Your task to perform on an android device: install app "Truecaller" Image 0: 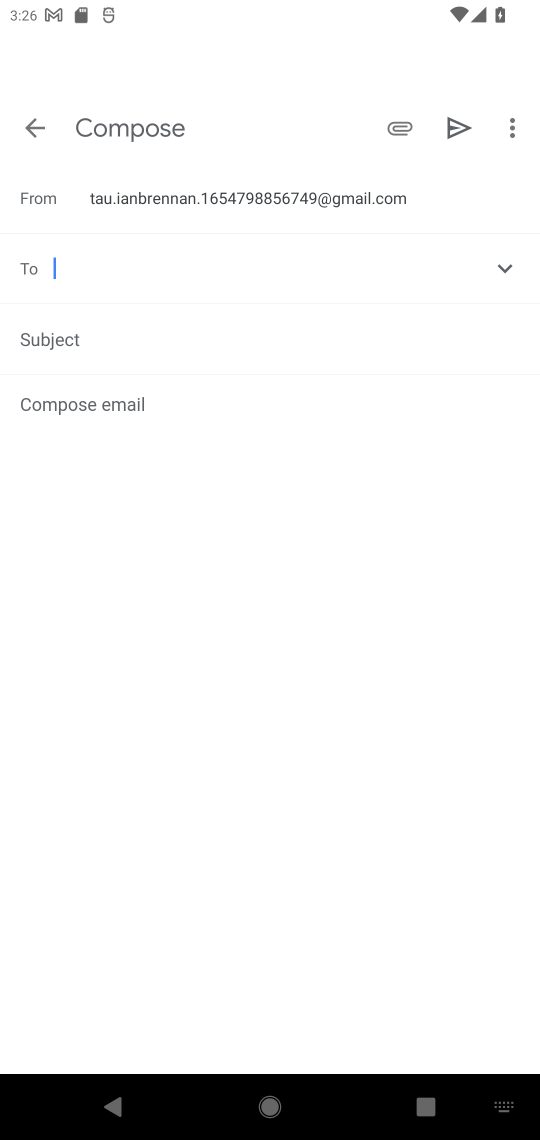
Step 0: press home button
Your task to perform on an android device: install app "Truecaller" Image 1: 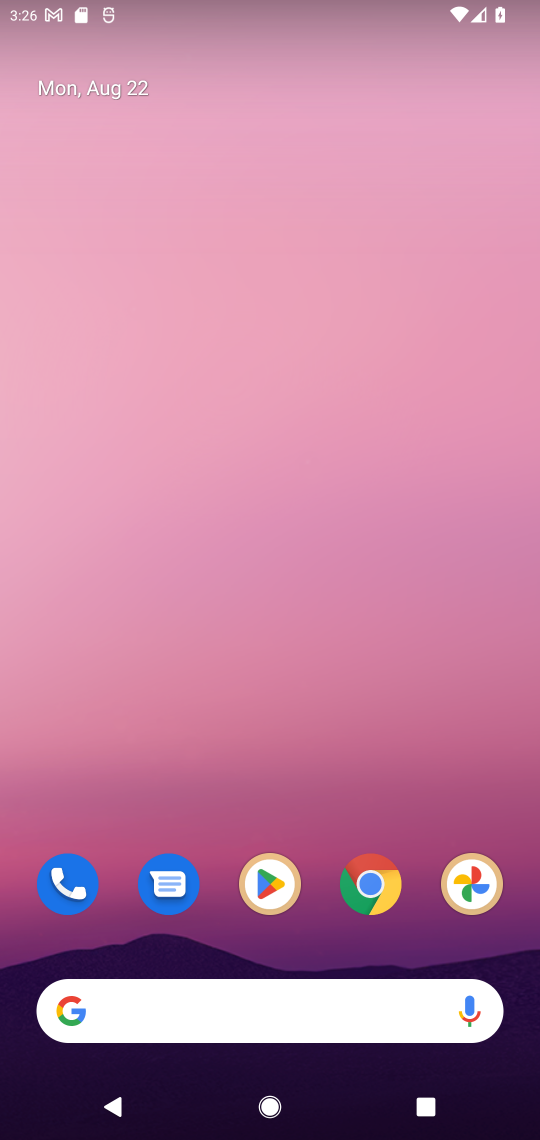
Step 1: click (281, 871)
Your task to perform on an android device: install app "Truecaller" Image 2: 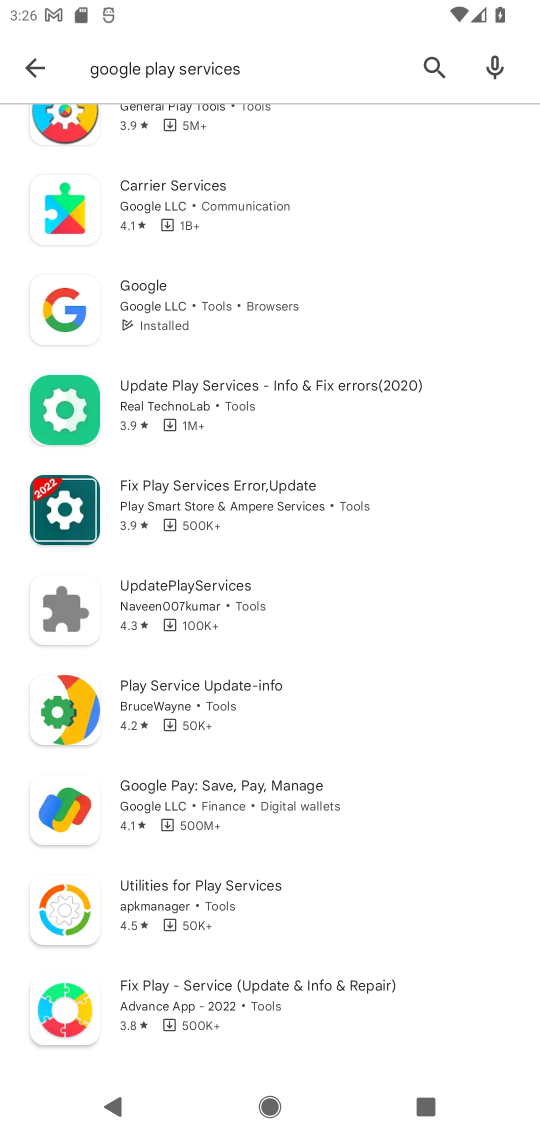
Step 2: click (208, 79)
Your task to perform on an android device: install app "Truecaller" Image 3: 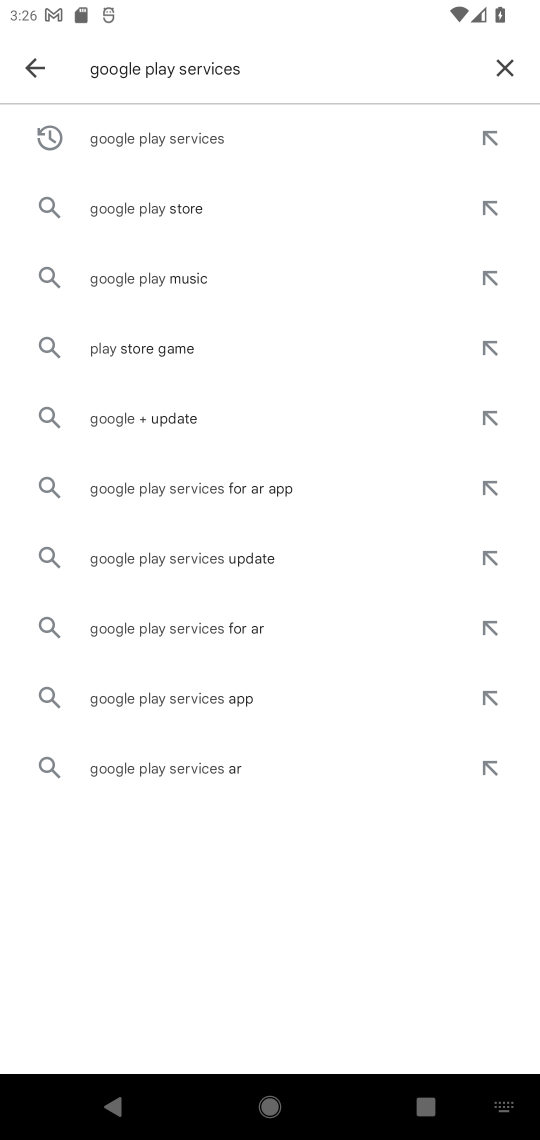
Step 3: click (505, 63)
Your task to perform on an android device: install app "Truecaller" Image 4: 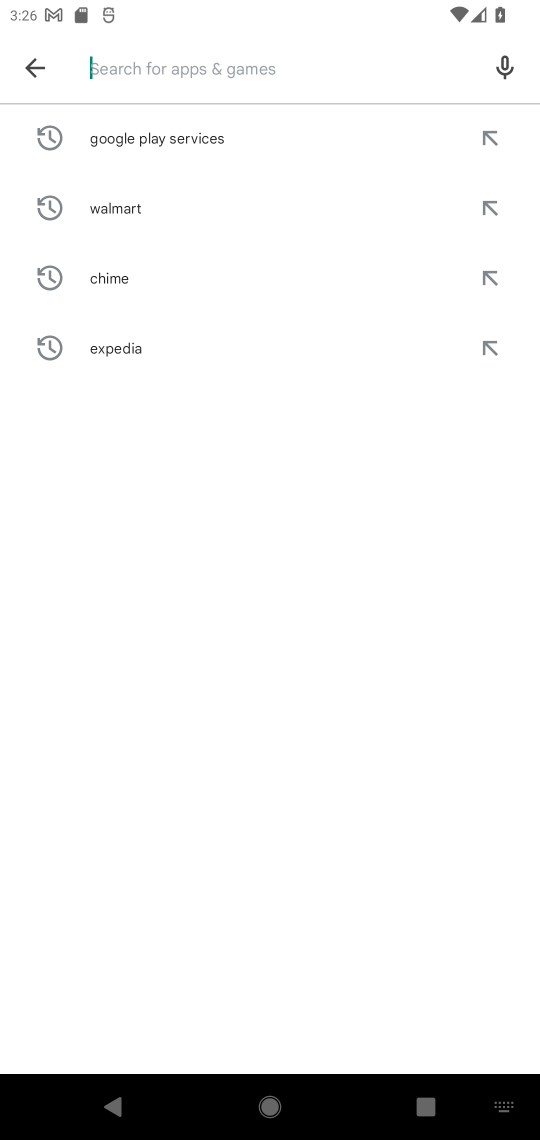
Step 4: type "truecaller"
Your task to perform on an android device: install app "Truecaller" Image 5: 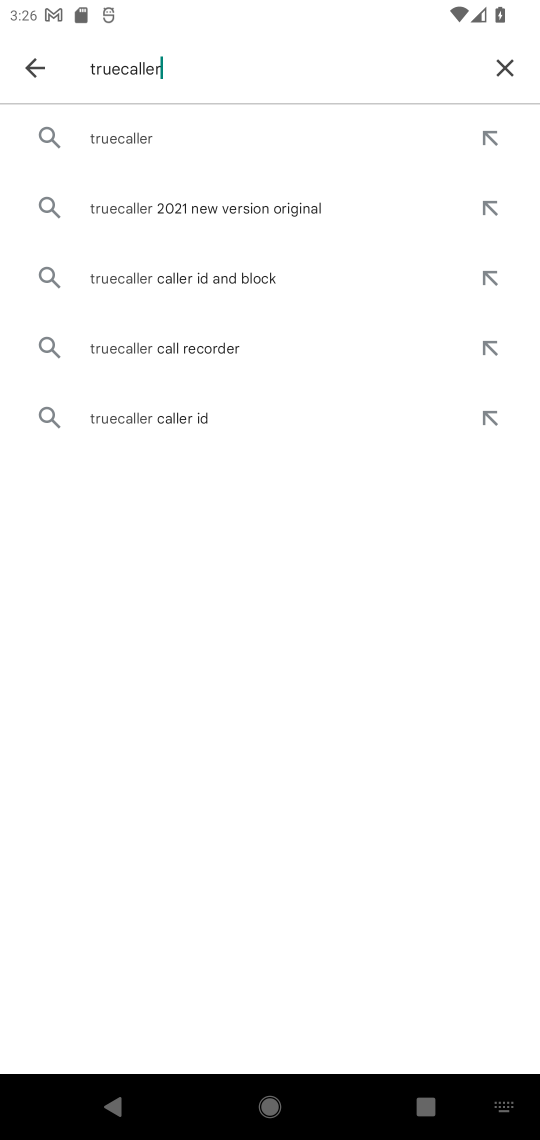
Step 5: click (107, 151)
Your task to perform on an android device: install app "Truecaller" Image 6: 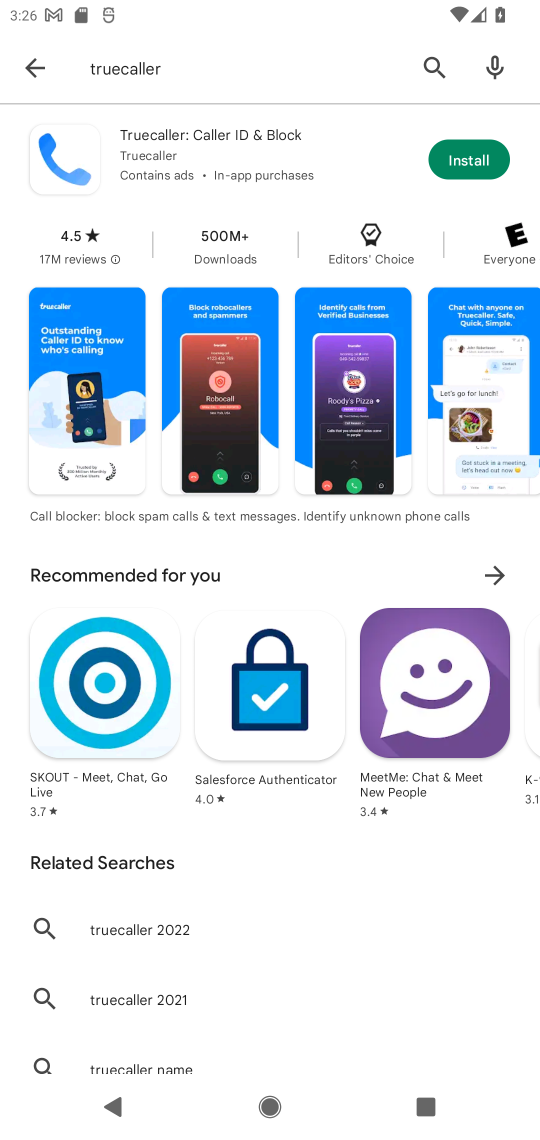
Step 6: click (466, 152)
Your task to perform on an android device: install app "Truecaller" Image 7: 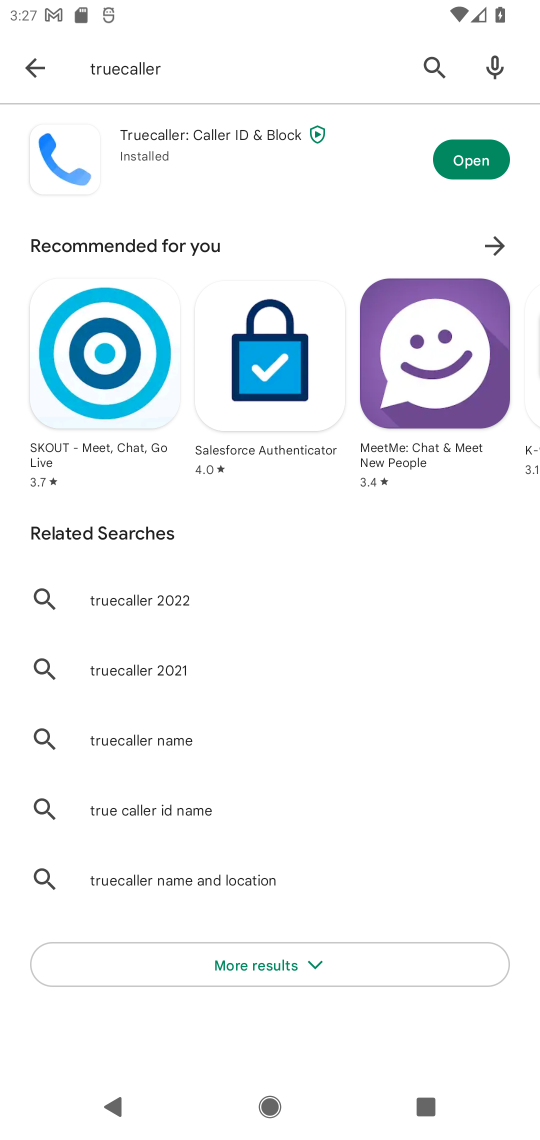
Step 7: task complete